Your task to perform on an android device: turn on bluetooth scan Image 0: 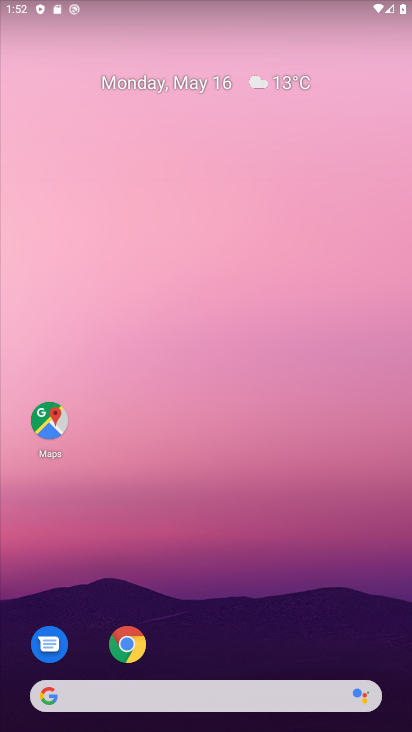
Step 0: drag from (197, 684) to (356, 330)
Your task to perform on an android device: turn on bluetooth scan Image 1: 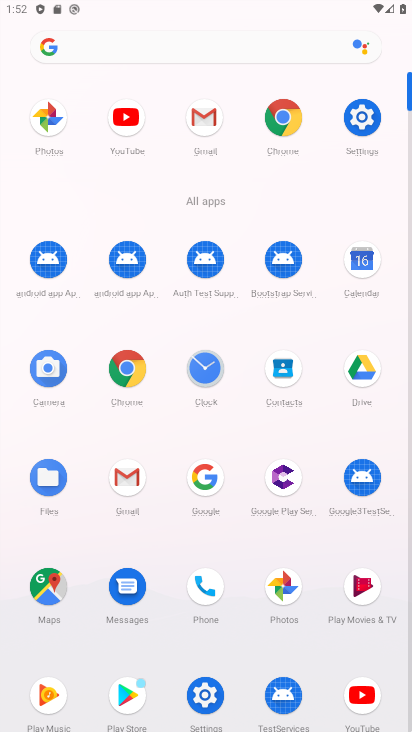
Step 1: click (375, 118)
Your task to perform on an android device: turn on bluetooth scan Image 2: 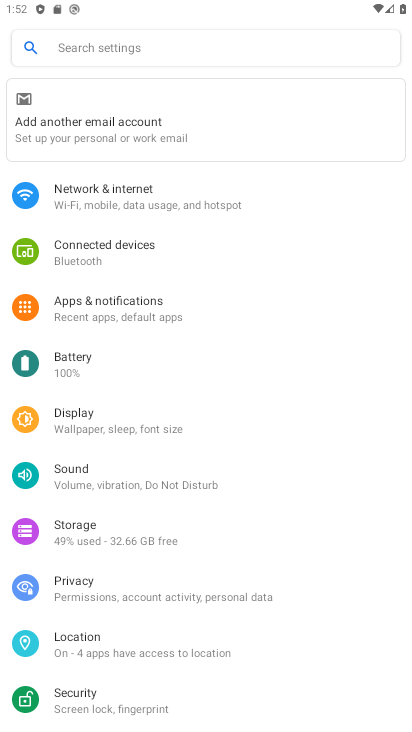
Step 2: click (99, 637)
Your task to perform on an android device: turn on bluetooth scan Image 3: 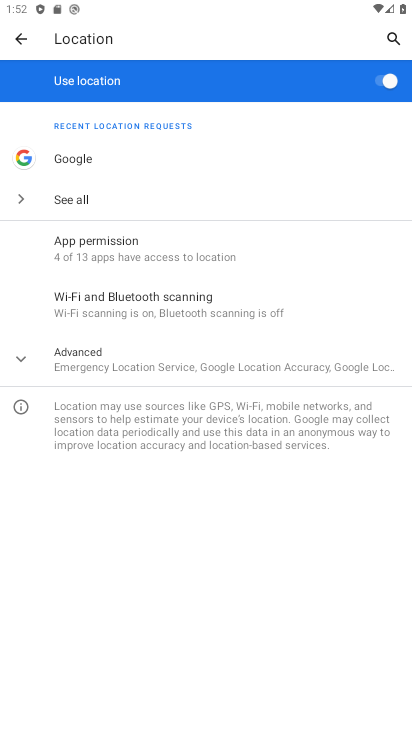
Step 3: click (103, 310)
Your task to perform on an android device: turn on bluetooth scan Image 4: 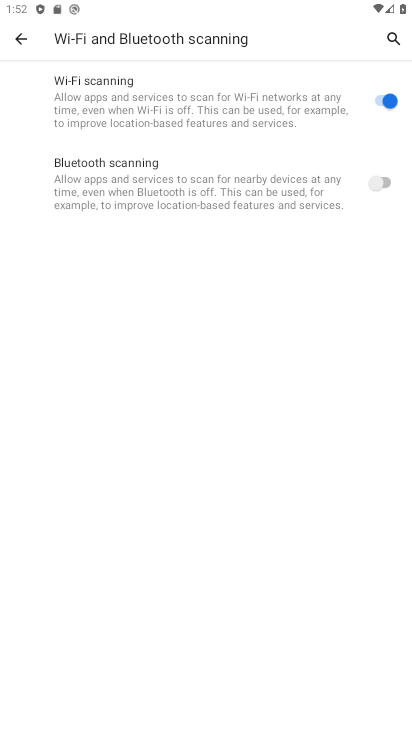
Step 4: click (388, 178)
Your task to perform on an android device: turn on bluetooth scan Image 5: 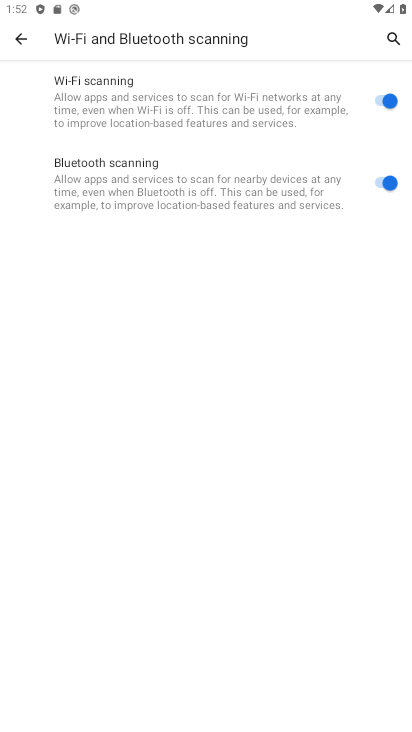
Step 5: task complete